Your task to perform on an android device: Open eBay Image 0: 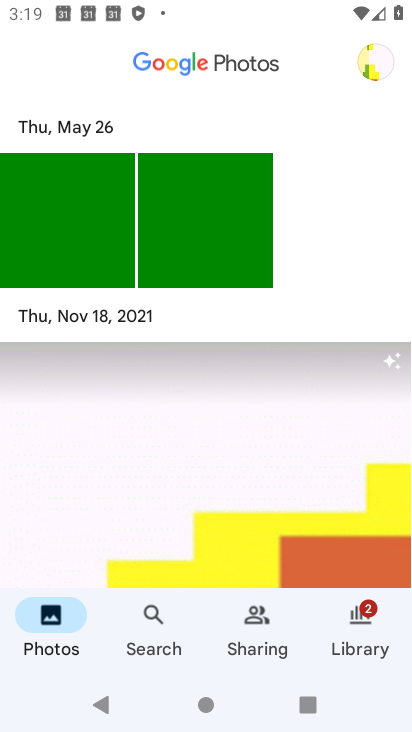
Step 0: click (355, 303)
Your task to perform on an android device: Open eBay Image 1: 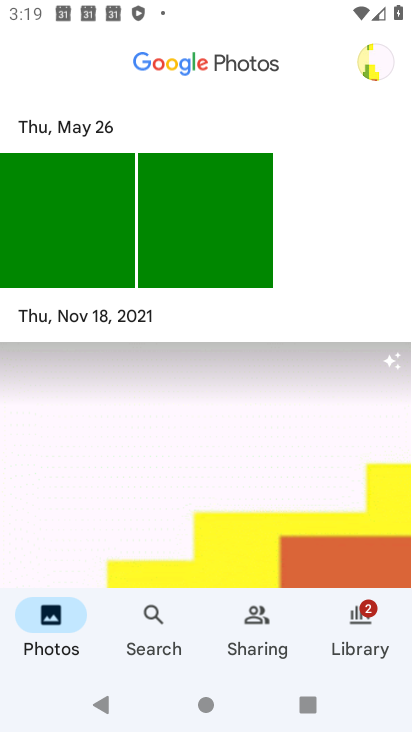
Step 1: press home button
Your task to perform on an android device: Open eBay Image 2: 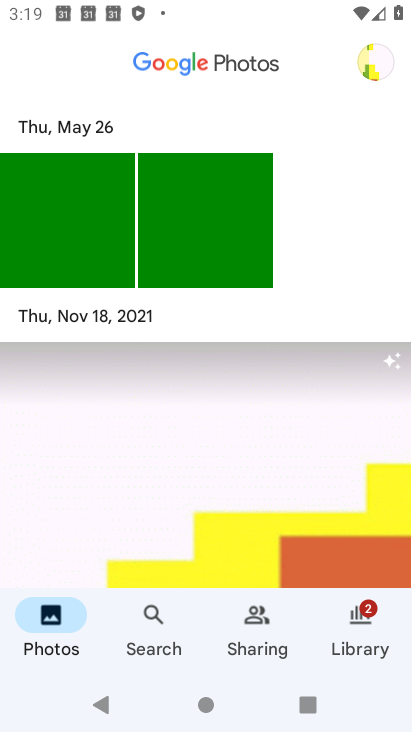
Step 2: drag from (258, 176) to (302, 36)
Your task to perform on an android device: Open eBay Image 3: 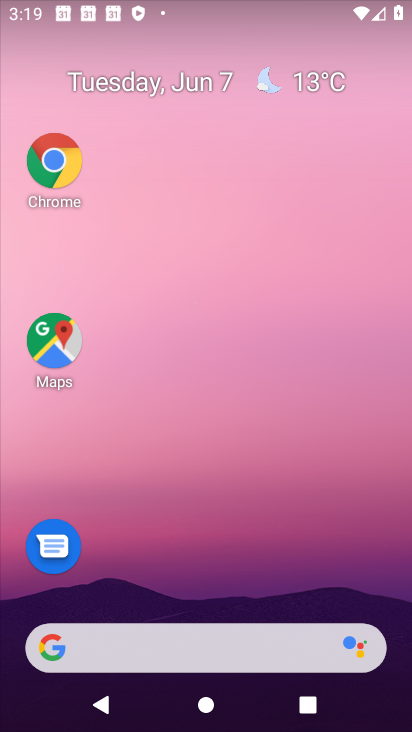
Step 3: drag from (158, 524) to (265, 19)
Your task to perform on an android device: Open eBay Image 4: 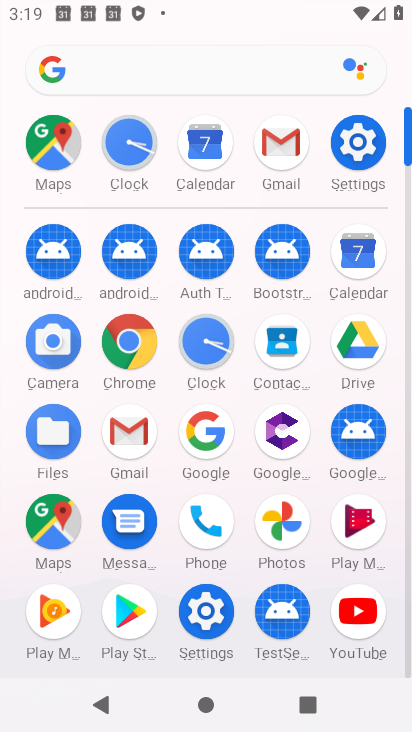
Step 4: click (181, 70)
Your task to perform on an android device: Open eBay Image 5: 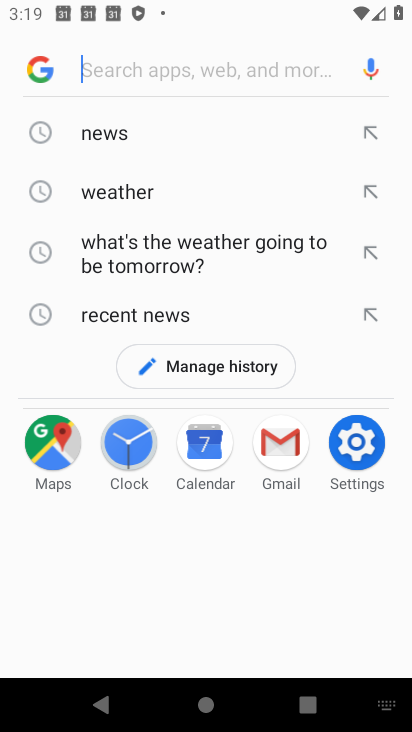
Step 5: type "eBay"
Your task to perform on an android device: Open eBay Image 6: 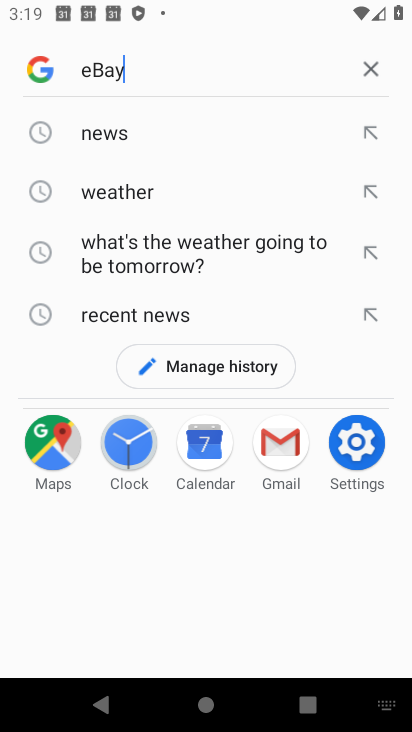
Step 6: type ""
Your task to perform on an android device: Open eBay Image 7: 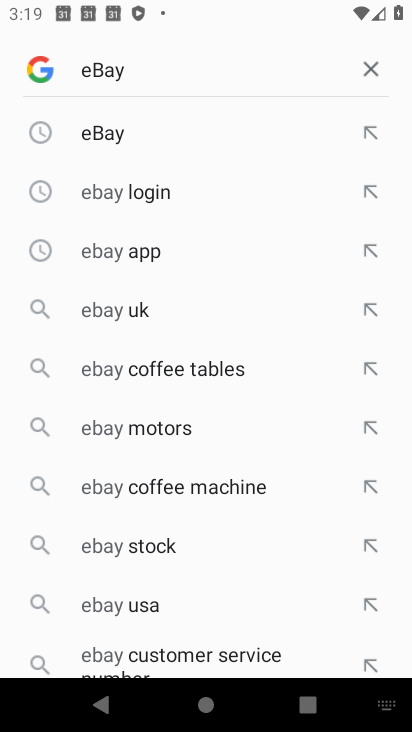
Step 7: click (159, 138)
Your task to perform on an android device: Open eBay Image 8: 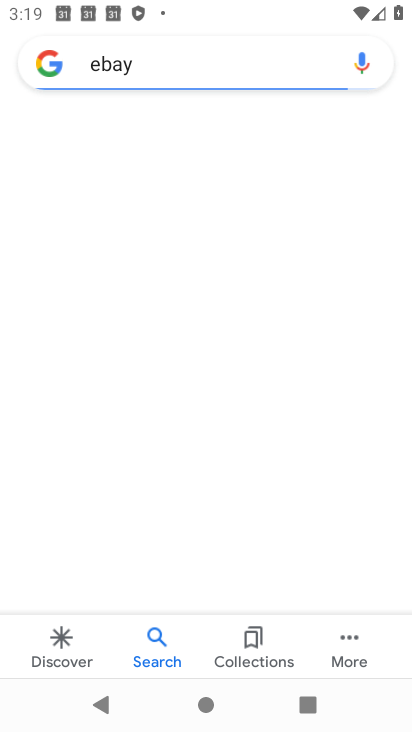
Step 8: drag from (227, 497) to (212, 155)
Your task to perform on an android device: Open eBay Image 9: 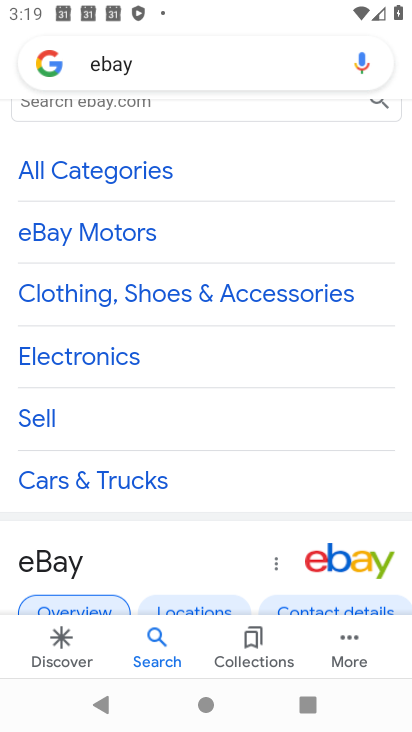
Step 9: drag from (245, 157) to (363, 593)
Your task to perform on an android device: Open eBay Image 10: 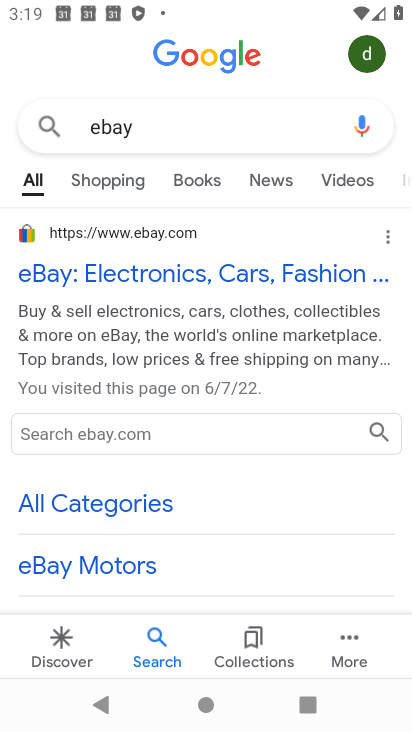
Step 10: click (121, 265)
Your task to perform on an android device: Open eBay Image 11: 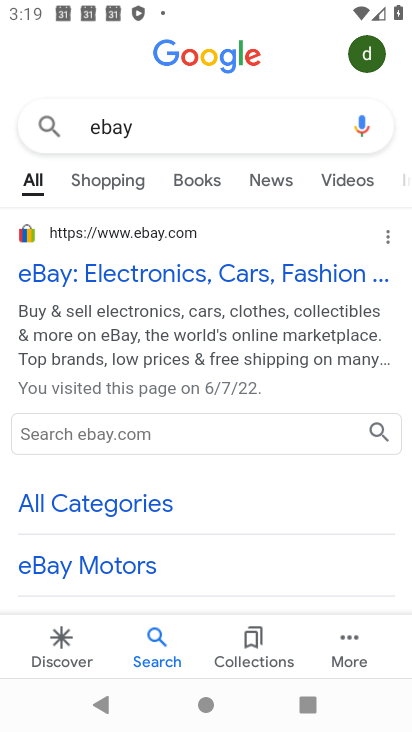
Step 11: task complete